Your task to perform on an android device: Open eBay Image 0: 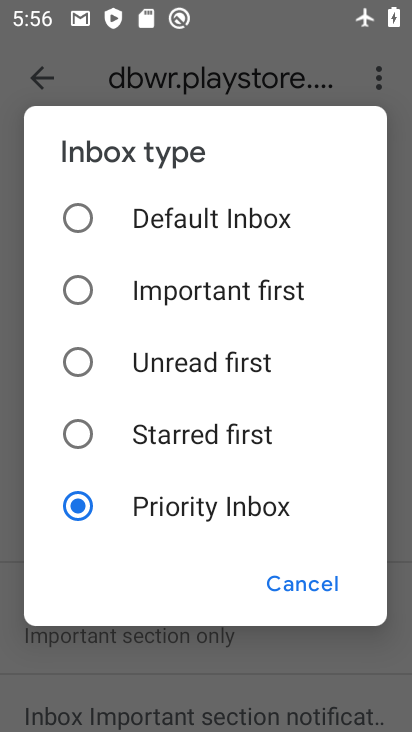
Step 0: press home button
Your task to perform on an android device: Open eBay Image 1: 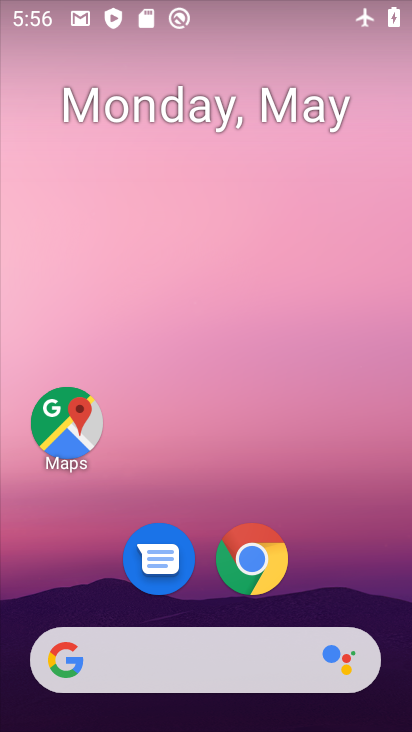
Step 1: click (229, 681)
Your task to perform on an android device: Open eBay Image 2: 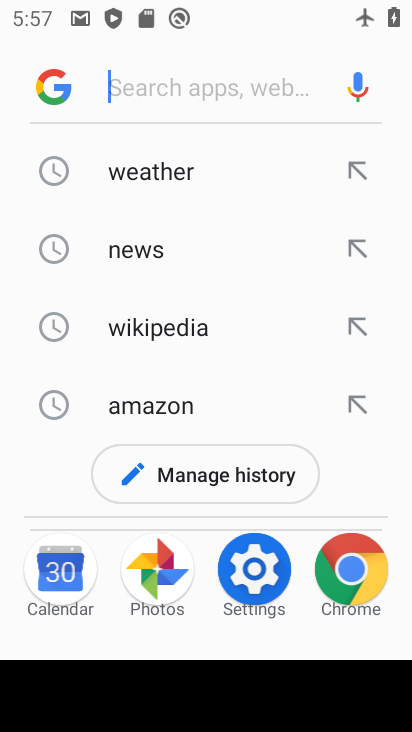
Step 2: type "ebay"
Your task to perform on an android device: Open eBay Image 3: 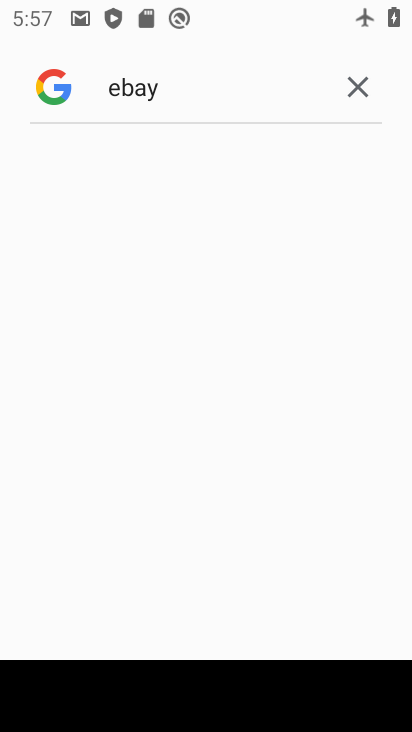
Step 3: task complete